Your task to perform on an android device: Open privacy settings Image 0: 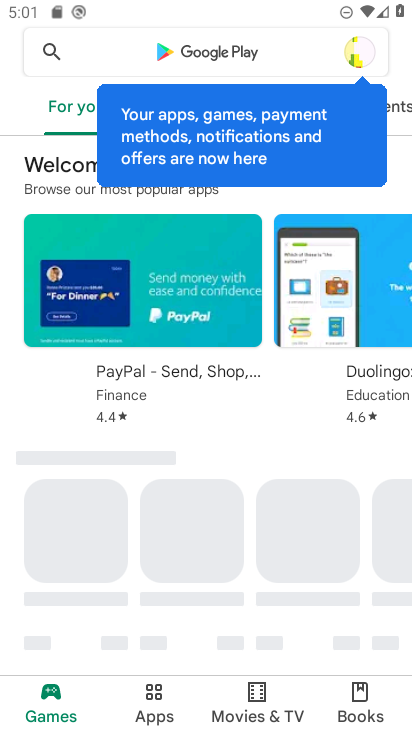
Step 0: press home button
Your task to perform on an android device: Open privacy settings Image 1: 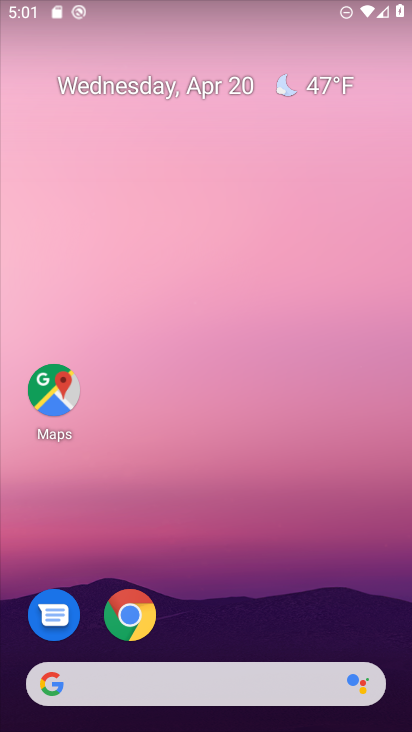
Step 1: drag from (220, 503) to (220, 138)
Your task to perform on an android device: Open privacy settings Image 2: 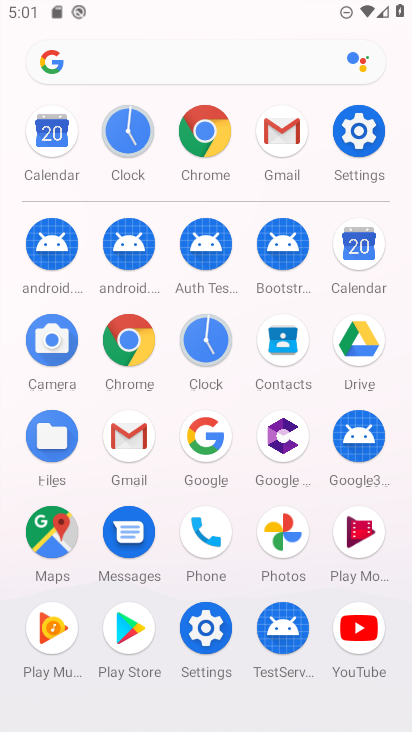
Step 2: click (347, 124)
Your task to perform on an android device: Open privacy settings Image 3: 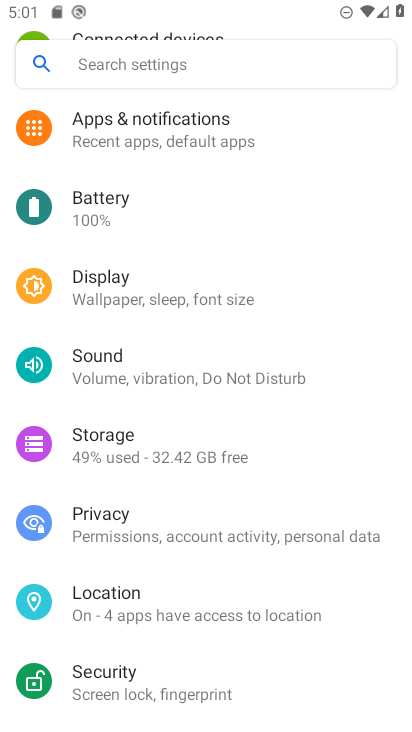
Step 3: click (144, 519)
Your task to perform on an android device: Open privacy settings Image 4: 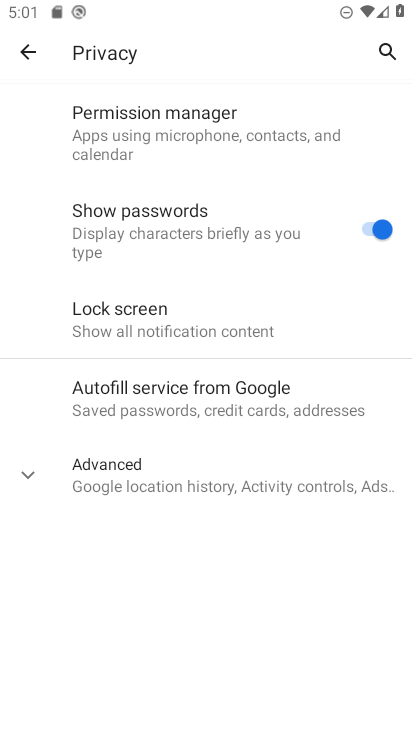
Step 4: task complete